Your task to perform on an android device: Go to Amazon Image 0: 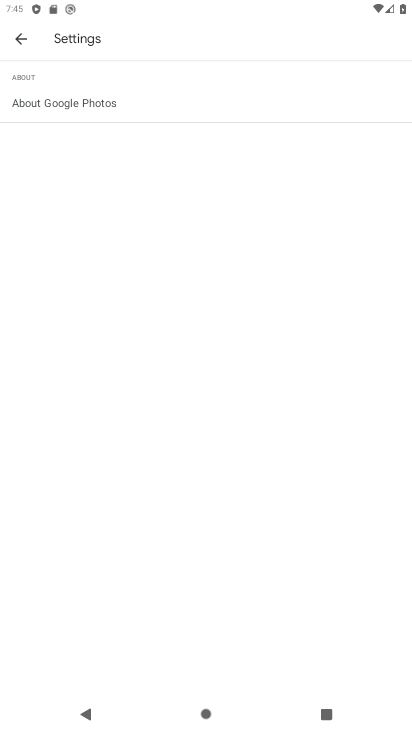
Step 0: press home button
Your task to perform on an android device: Go to Amazon Image 1: 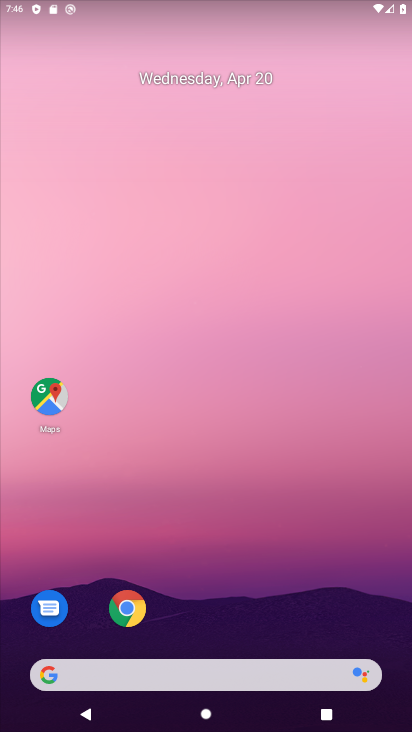
Step 1: click (126, 607)
Your task to perform on an android device: Go to Amazon Image 2: 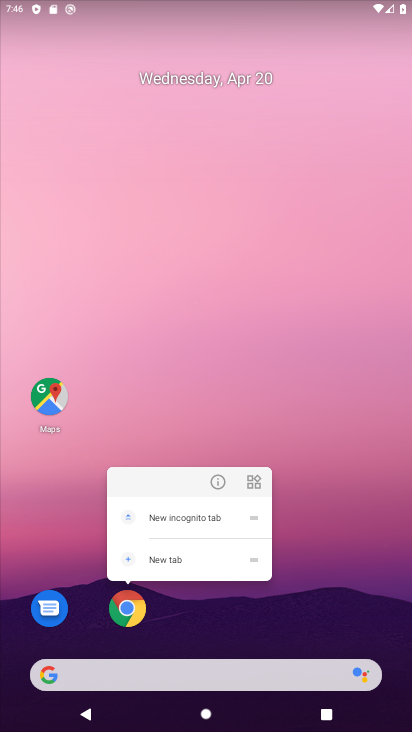
Step 2: click (222, 487)
Your task to perform on an android device: Go to Amazon Image 3: 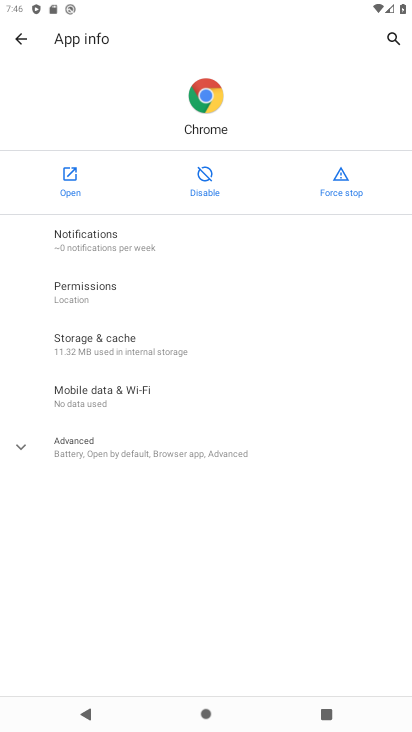
Step 3: click (75, 180)
Your task to perform on an android device: Go to Amazon Image 4: 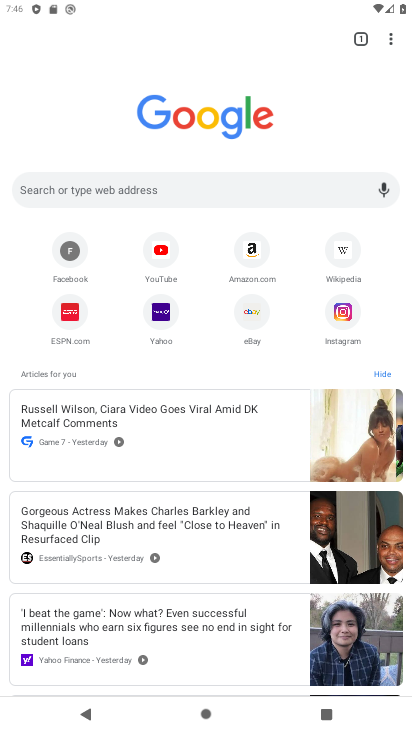
Step 4: click (140, 185)
Your task to perform on an android device: Go to Amazon Image 5: 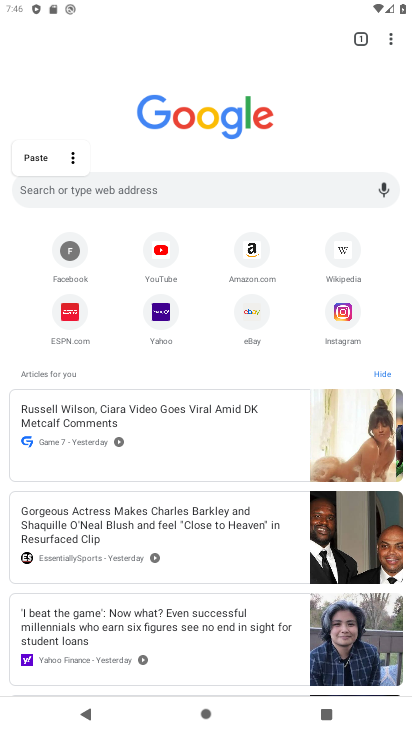
Step 5: type "amazon"
Your task to perform on an android device: Go to Amazon Image 6: 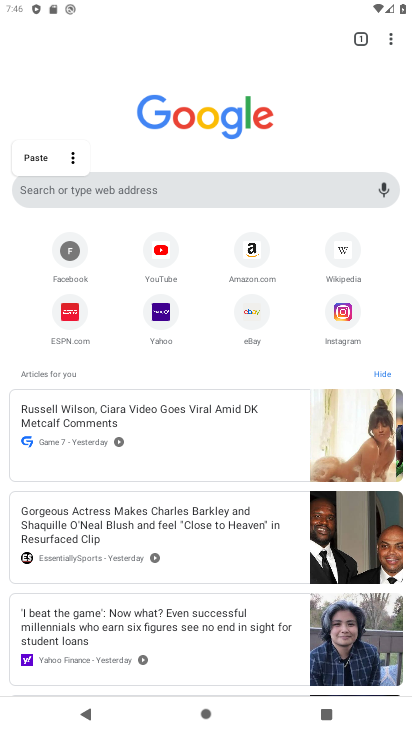
Step 6: click (72, 182)
Your task to perform on an android device: Go to Amazon Image 7: 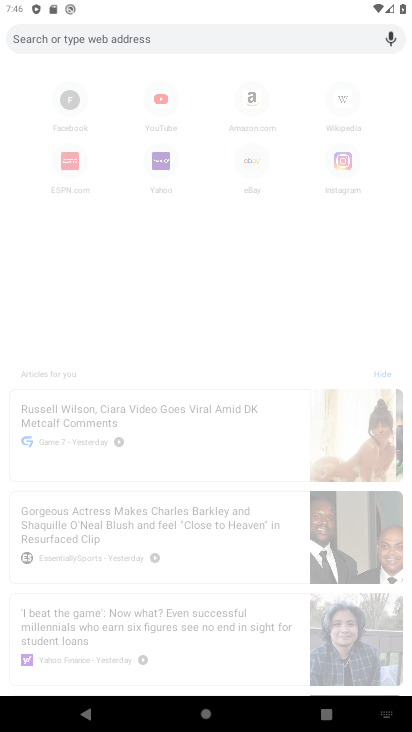
Step 7: type "amazon"
Your task to perform on an android device: Go to Amazon Image 8: 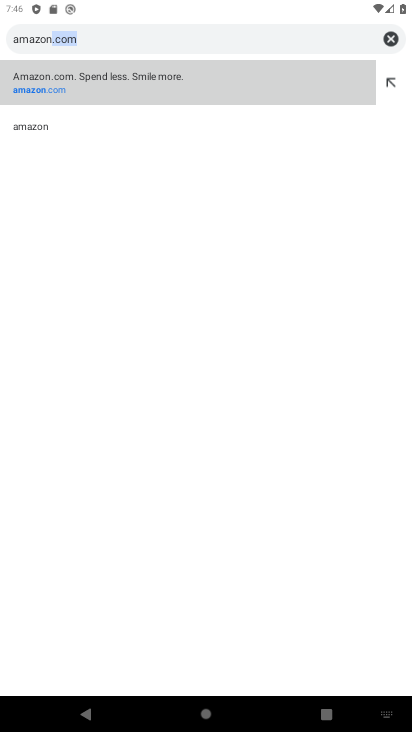
Step 8: click (37, 126)
Your task to perform on an android device: Go to Amazon Image 9: 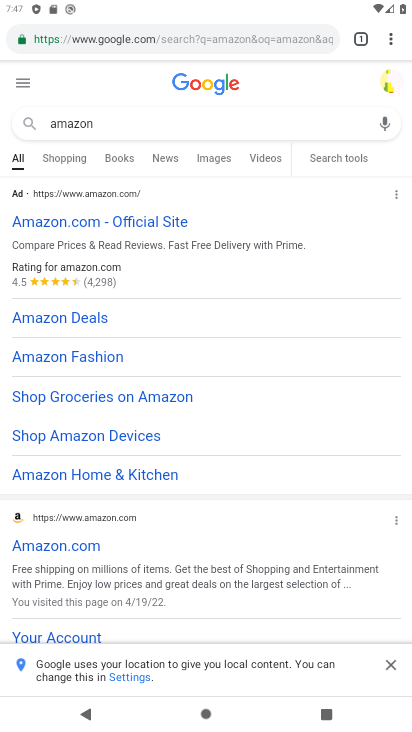
Step 9: task complete